Your task to perform on an android device: open the mobile data screen to see how much data has been used Image 0: 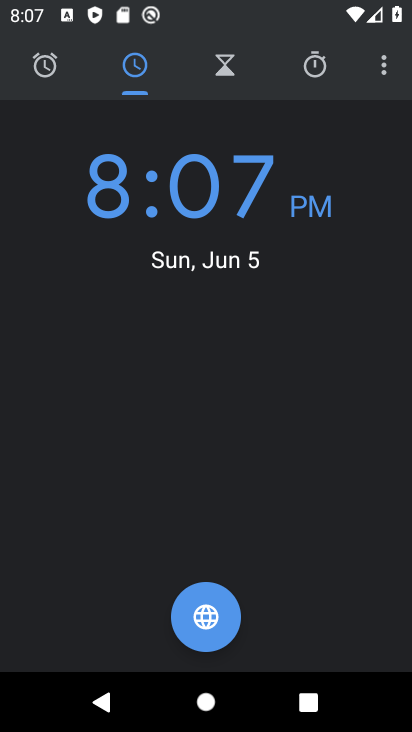
Step 0: drag from (219, 11) to (285, 441)
Your task to perform on an android device: open the mobile data screen to see how much data has been used Image 1: 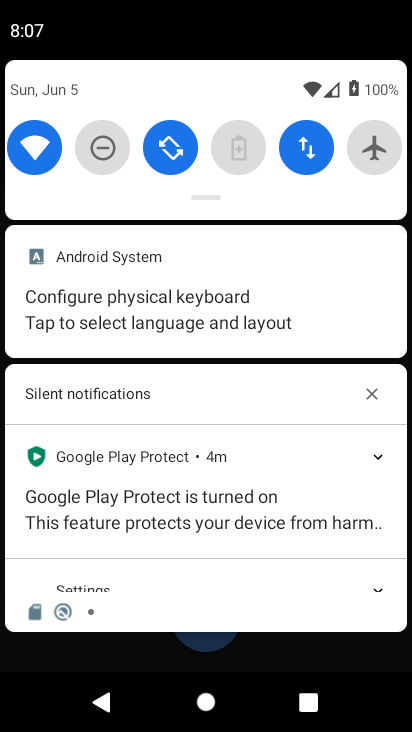
Step 1: click (296, 152)
Your task to perform on an android device: open the mobile data screen to see how much data has been used Image 2: 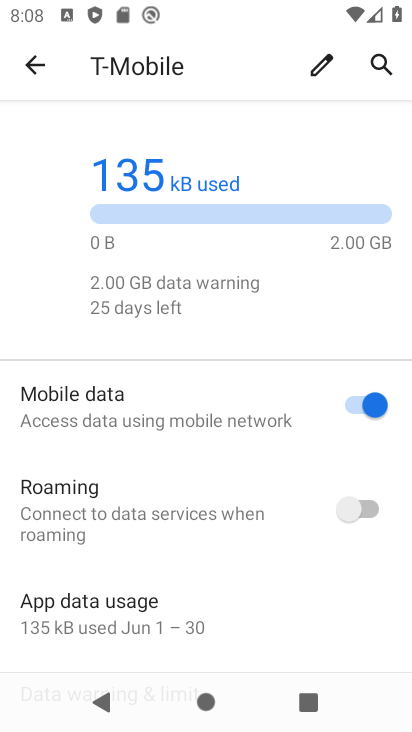
Step 2: task complete